Your task to perform on an android device: open app "Pluto TV - Live TV and Movies" (install if not already installed), go to login, and select forgot password Image 0: 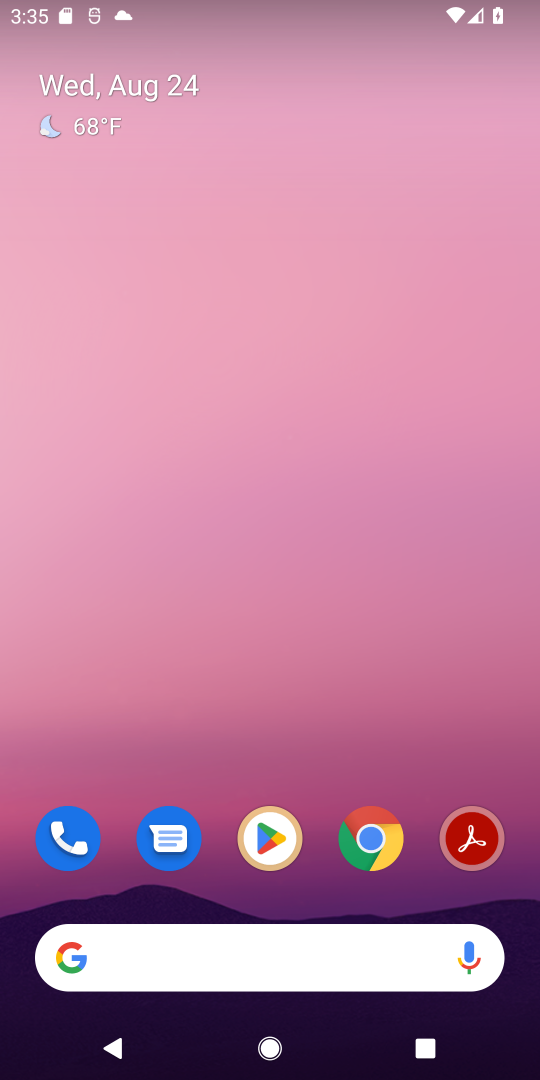
Step 0: click (275, 821)
Your task to perform on an android device: open app "Pluto TV - Live TV and Movies" (install if not already installed), go to login, and select forgot password Image 1: 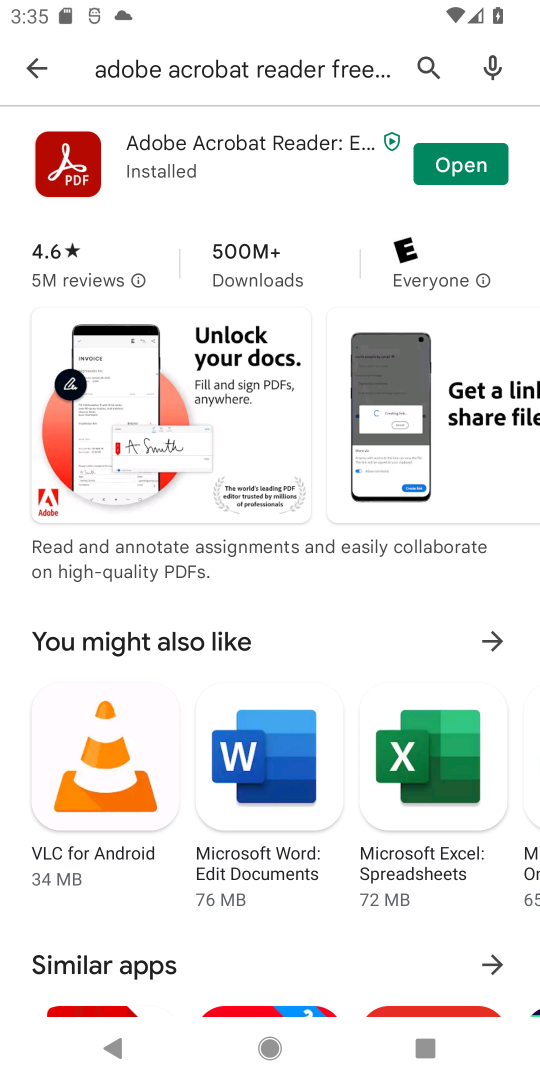
Step 1: click (15, 67)
Your task to perform on an android device: open app "Pluto TV - Live TV and Movies" (install if not already installed), go to login, and select forgot password Image 2: 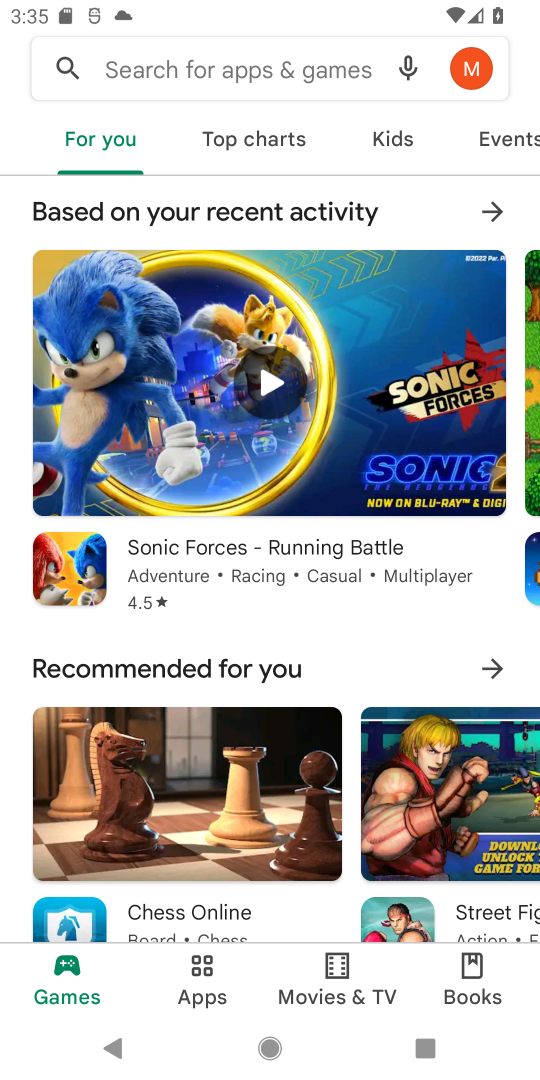
Step 2: click (257, 87)
Your task to perform on an android device: open app "Pluto TV - Live TV and Movies" (install if not already installed), go to login, and select forgot password Image 3: 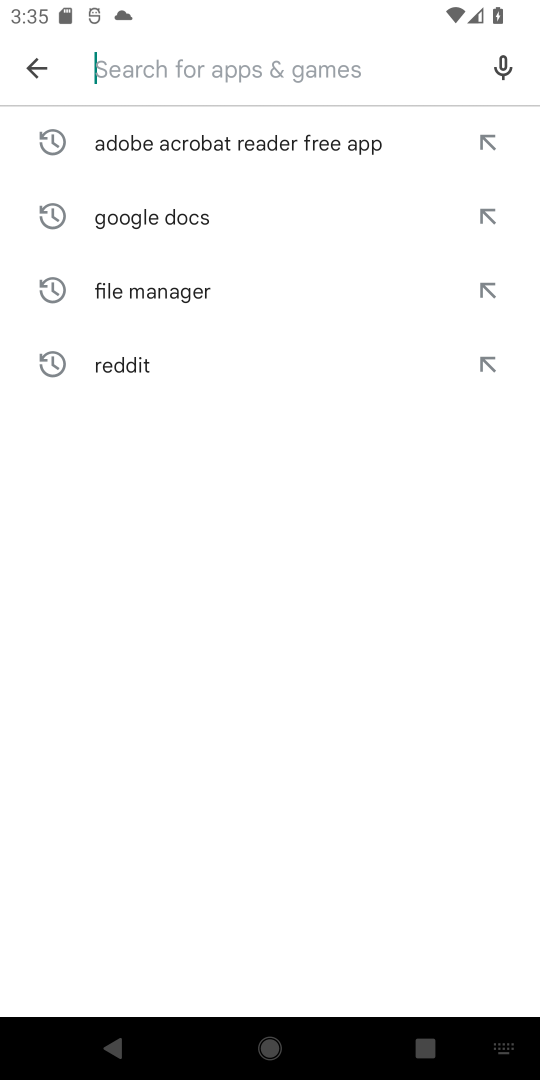
Step 3: drag from (273, 1002) to (435, 1065)
Your task to perform on an android device: open app "Pluto TV - Live TV and Movies" (install if not already installed), go to login, and select forgot password Image 4: 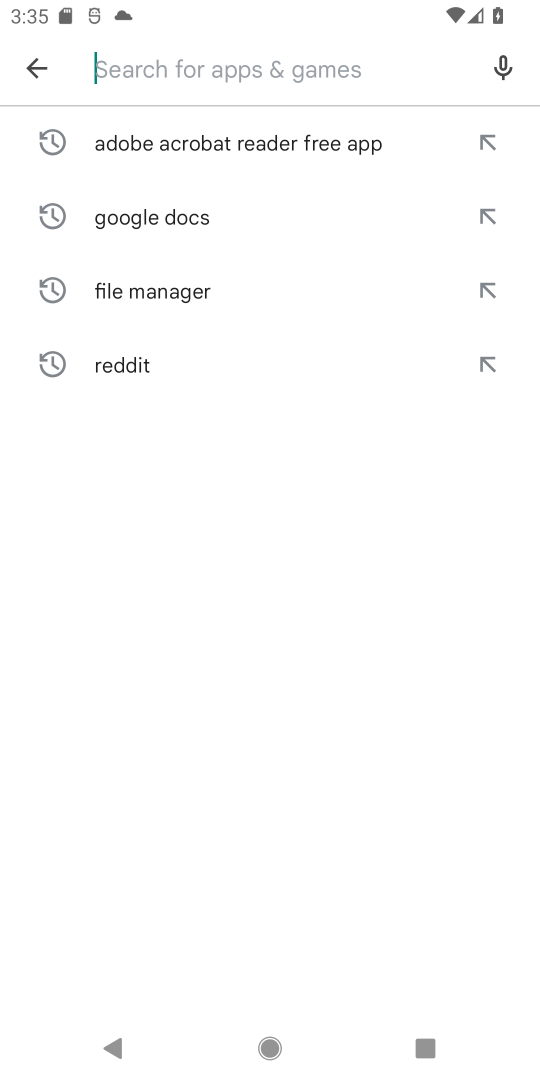
Step 4: type "Pluto TV - Live TV and Movies"
Your task to perform on an android device: open app "Pluto TV - Live TV and Movies" (install if not already installed), go to login, and select forgot password Image 5: 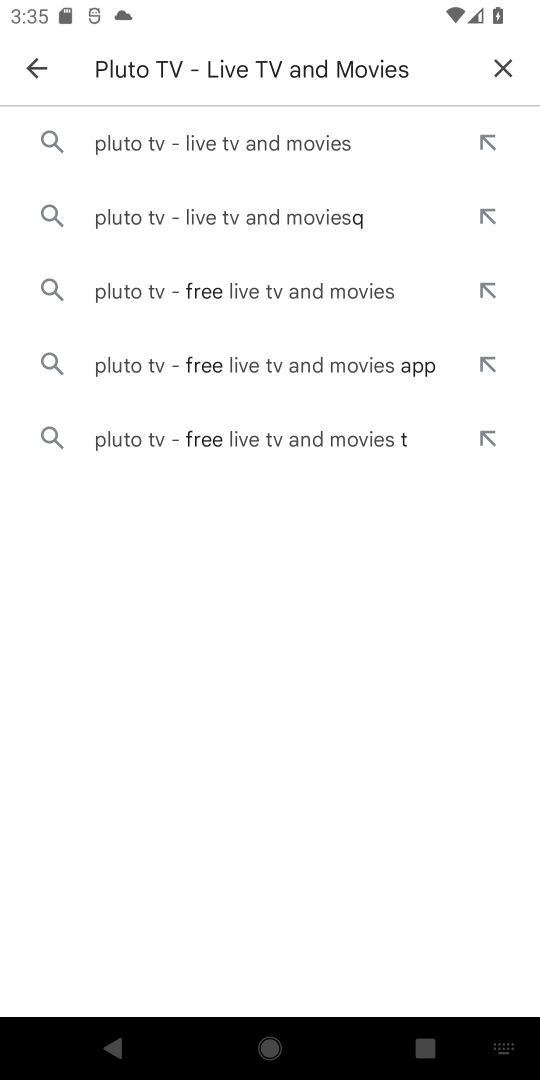
Step 5: click (300, 139)
Your task to perform on an android device: open app "Pluto TV - Live TV and Movies" (install if not already installed), go to login, and select forgot password Image 6: 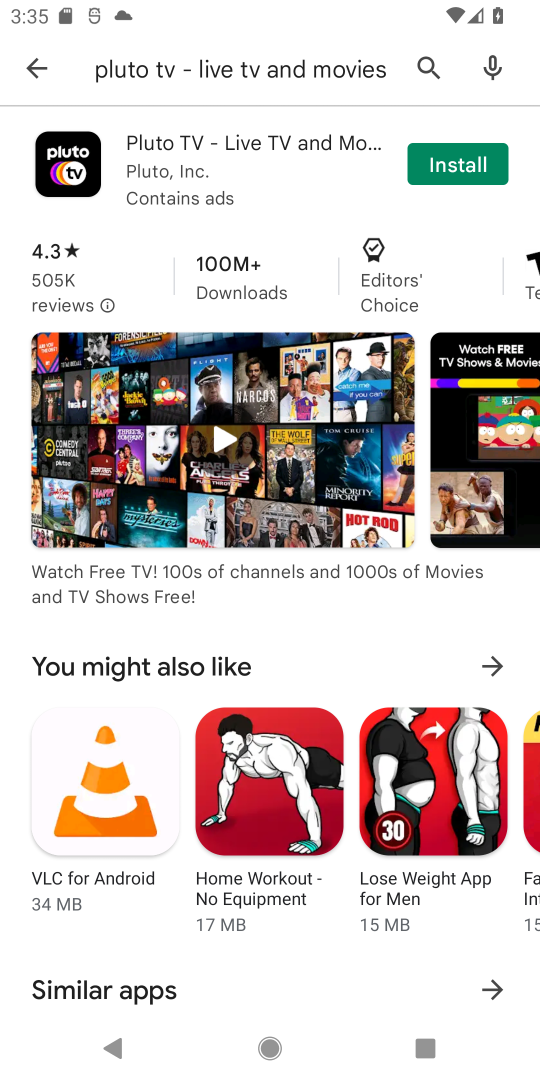
Step 6: click (440, 153)
Your task to perform on an android device: open app "Pluto TV - Live TV and Movies" (install if not already installed), go to login, and select forgot password Image 7: 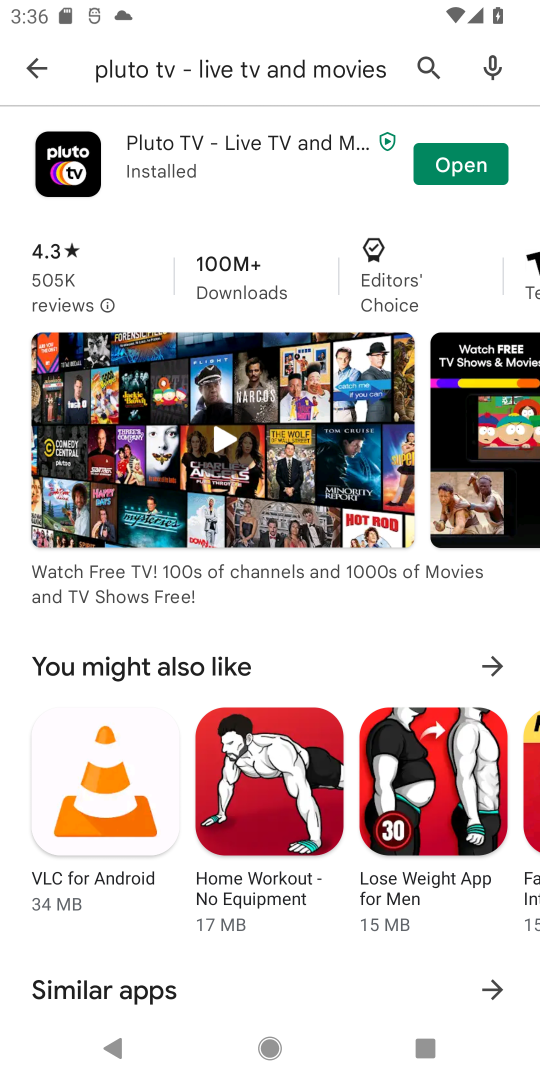
Step 7: click (440, 153)
Your task to perform on an android device: open app "Pluto TV - Live TV and Movies" (install if not already installed), go to login, and select forgot password Image 8: 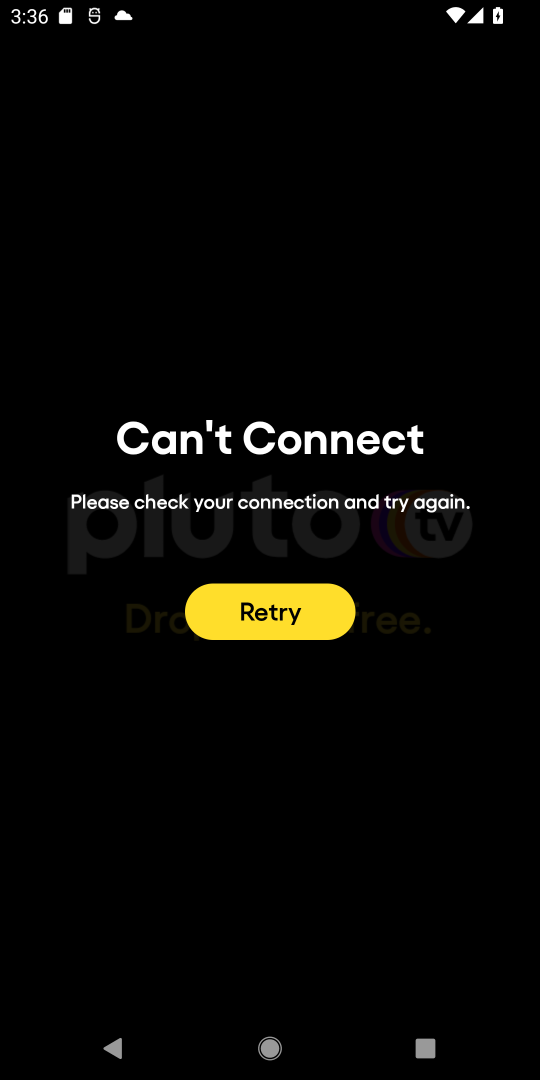
Step 8: click (316, 621)
Your task to perform on an android device: open app "Pluto TV - Live TV and Movies" (install if not already installed), go to login, and select forgot password Image 9: 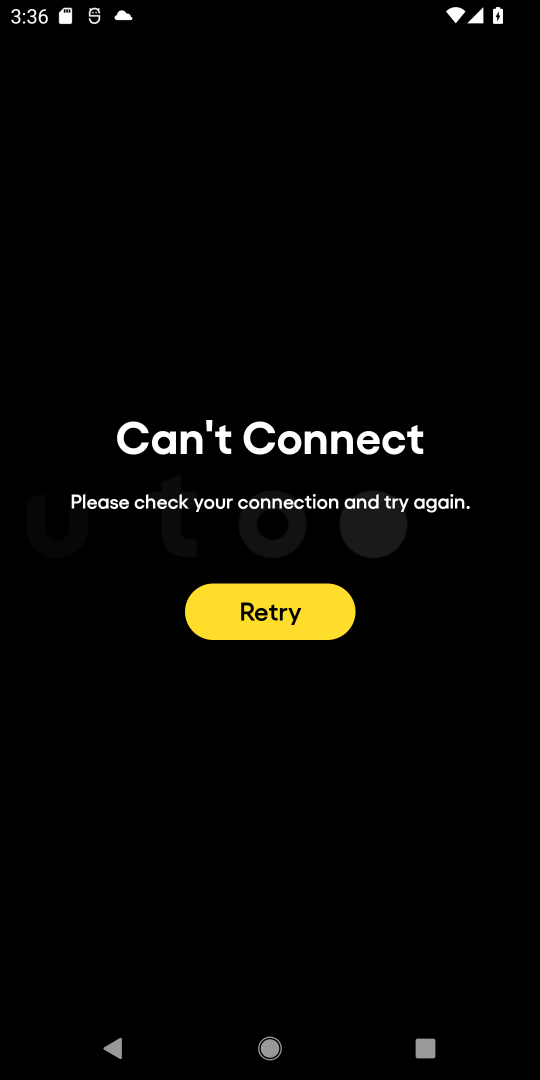
Step 9: click (260, 633)
Your task to perform on an android device: open app "Pluto TV - Live TV and Movies" (install if not already installed), go to login, and select forgot password Image 10: 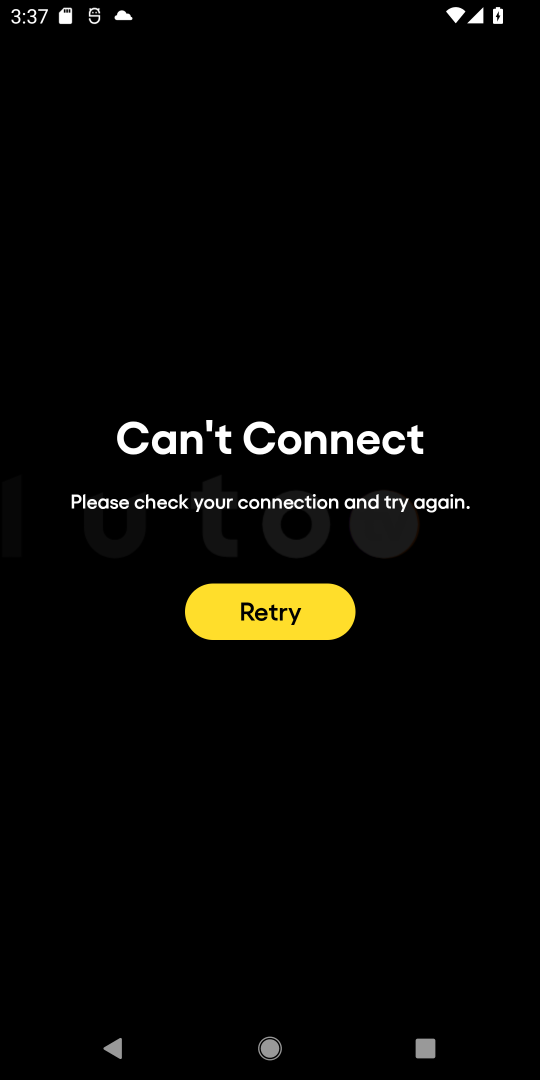
Step 10: click (265, 601)
Your task to perform on an android device: open app "Pluto TV - Live TV and Movies" (install if not already installed), go to login, and select forgot password Image 11: 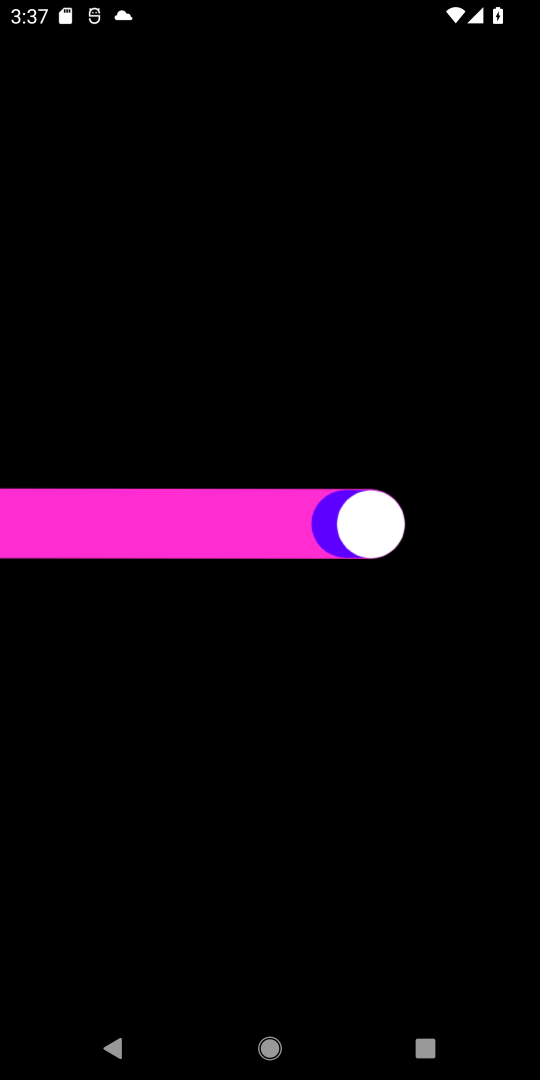
Step 11: task complete